Your task to perform on an android device: open app "Reddit" (install if not already installed), go to login, and select forgot password Image 0: 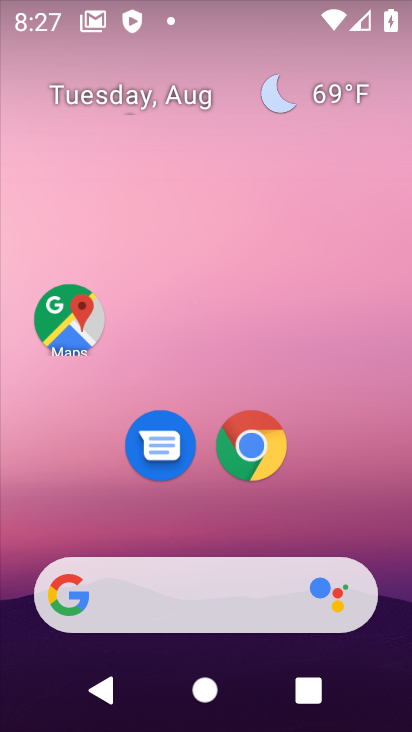
Step 0: drag from (211, 532) to (382, 37)
Your task to perform on an android device: open app "Reddit" (install if not already installed), go to login, and select forgot password Image 1: 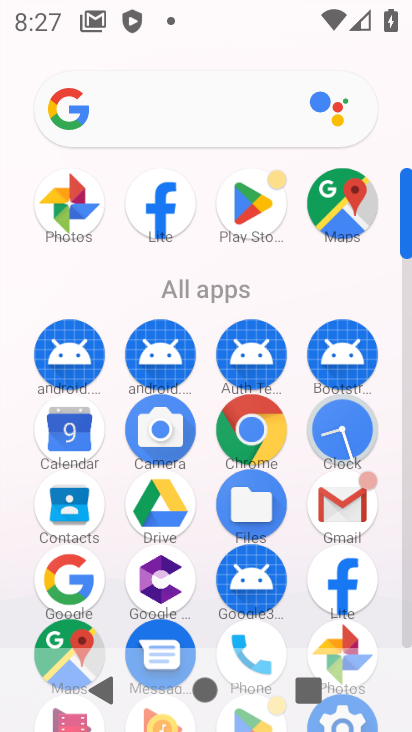
Step 1: click (239, 212)
Your task to perform on an android device: open app "Reddit" (install if not already installed), go to login, and select forgot password Image 2: 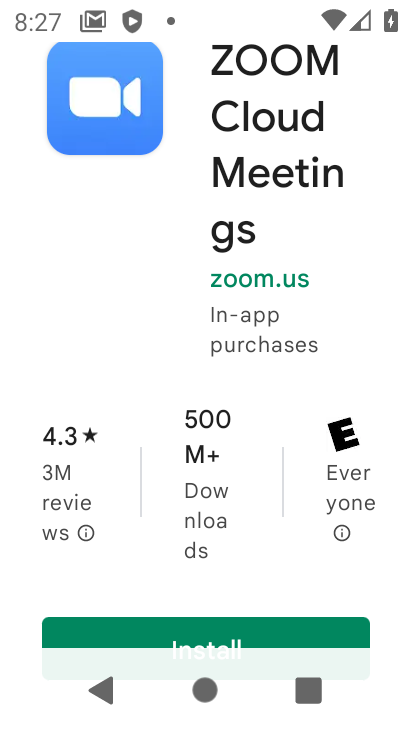
Step 2: drag from (48, 92) to (40, 409)
Your task to perform on an android device: open app "Reddit" (install if not already installed), go to login, and select forgot password Image 3: 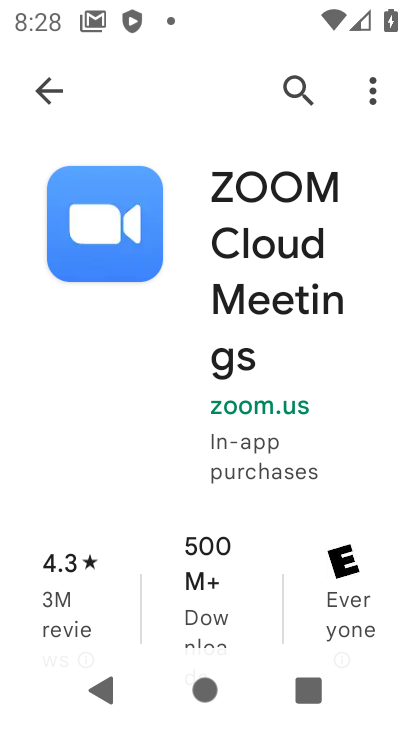
Step 3: click (47, 101)
Your task to perform on an android device: open app "Reddit" (install if not already installed), go to login, and select forgot password Image 4: 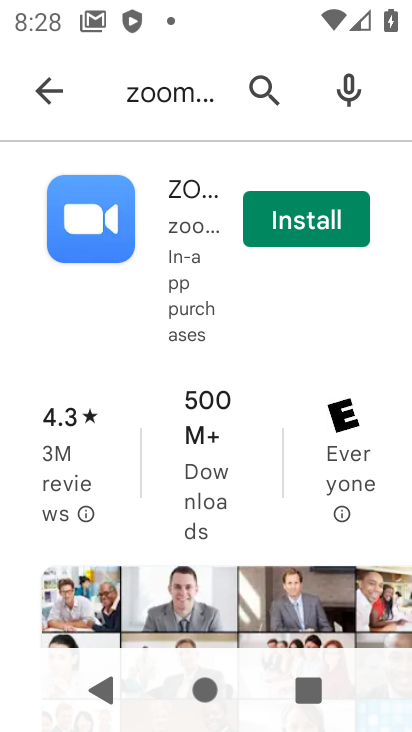
Step 4: click (34, 94)
Your task to perform on an android device: open app "Reddit" (install if not already installed), go to login, and select forgot password Image 5: 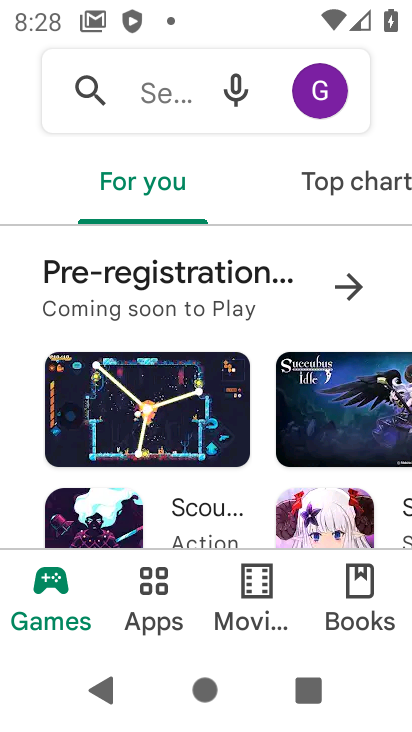
Step 5: click (200, 104)
Your task to perform on an android device: open app "Reddit" (install if not already installed), go to login, and select forgot password Image 6: 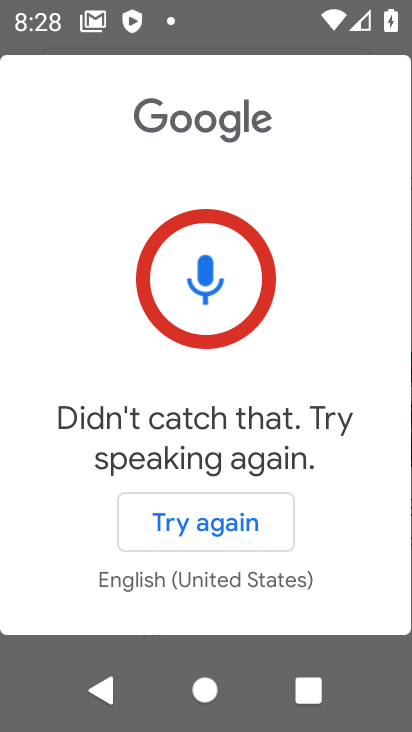
Step 6: click (204, 533)
Your task to perform on an android device: open app "Reddit" (install if not already installed), go to login, and select forgot password Image 7: 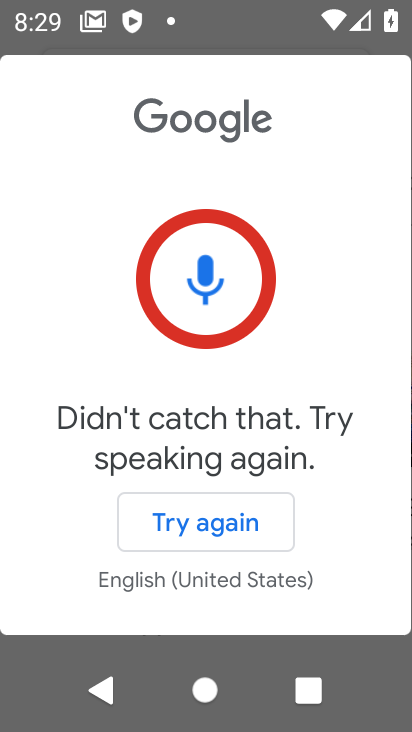
Step 7: press back button
Your task to perform on an android device: open app "Reddit" (install if not already installed), go to login, and select forgot password Image 8: 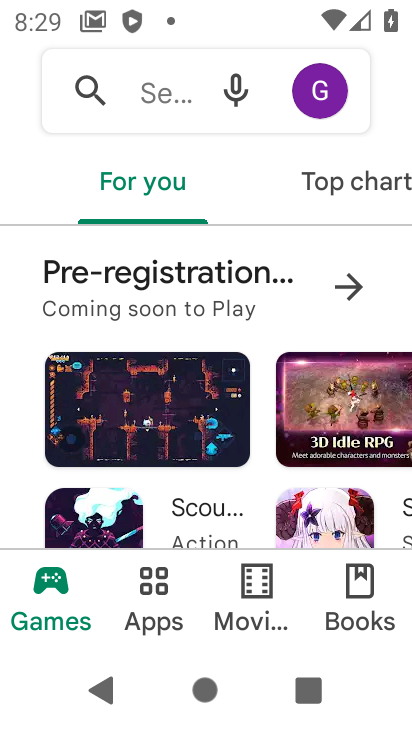
Step 8: click (133, 97)
Your task to perform on an android device: open app "Reddit" (install if not already installed), go to login, and select forgot password Image 9: 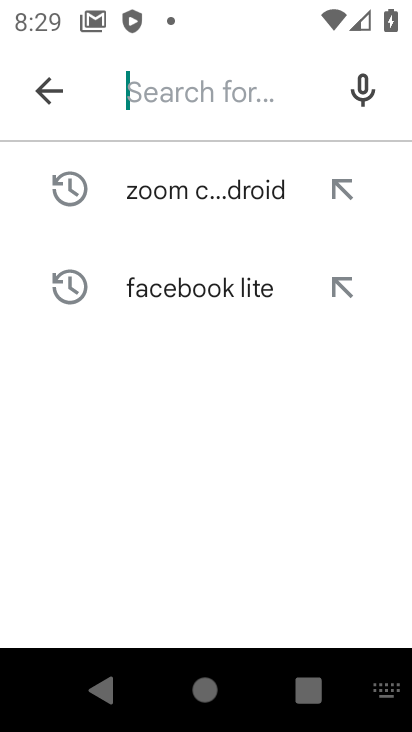
Step 9: type "Reddit"
Your task to perform on an android device: open app "Reddit" (install if not already installed), go to login, and select forgot password Image 10: 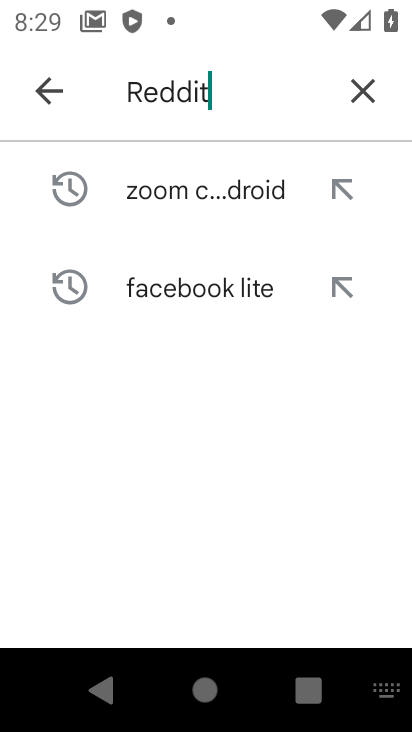
Step 10: type ""
Your task to perform on an android device: open app "Reddit" (install if not already installed), go to login, and select forgot password Image 11: 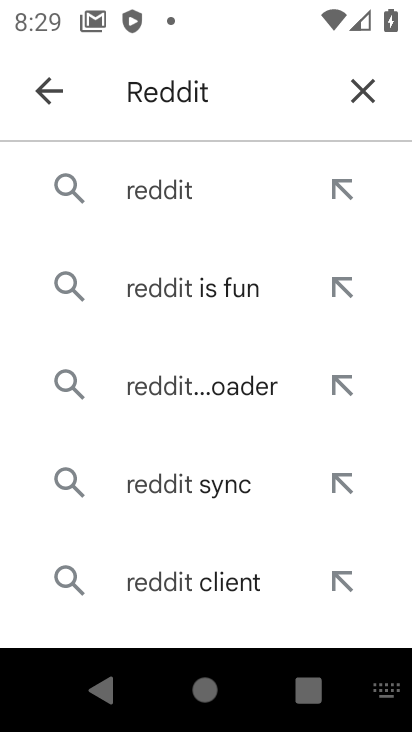
Step 11: click (131, 183)
Your task to perform on an android device: open app "Reddit" (install if not already installed), go to login, and select forgot password Image 12: 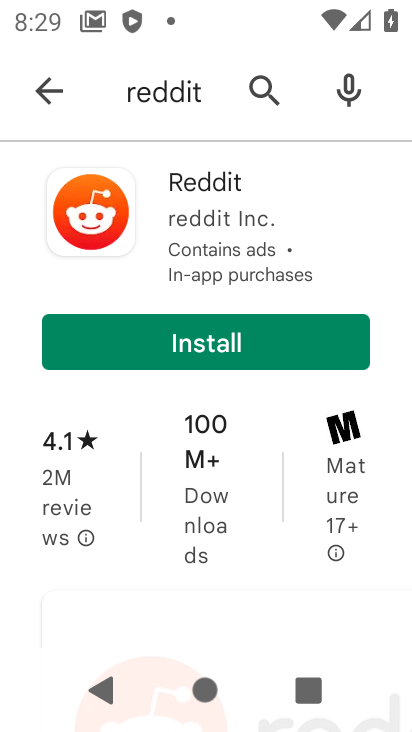
Step 12: click (224, 370)
Your task to perform on an android device: open app "Reddit" (install if not already installed), go to login, and select forgot password Image 13: 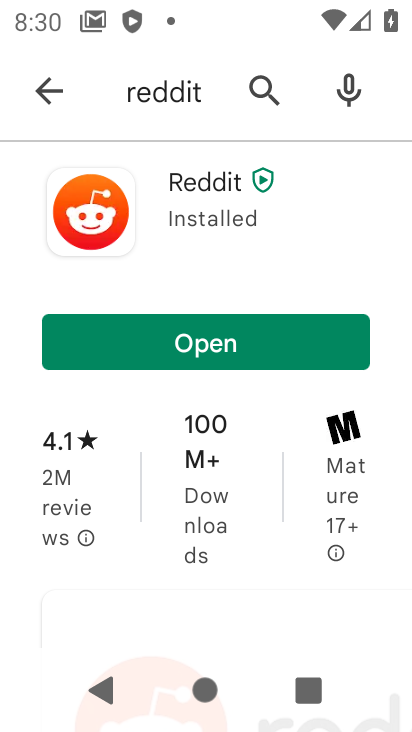
Step 13: click (288, 349)
Your task to perform on an android device: open app "Reddit" (install if not already installed), go to login, and select forgot password Image 14: 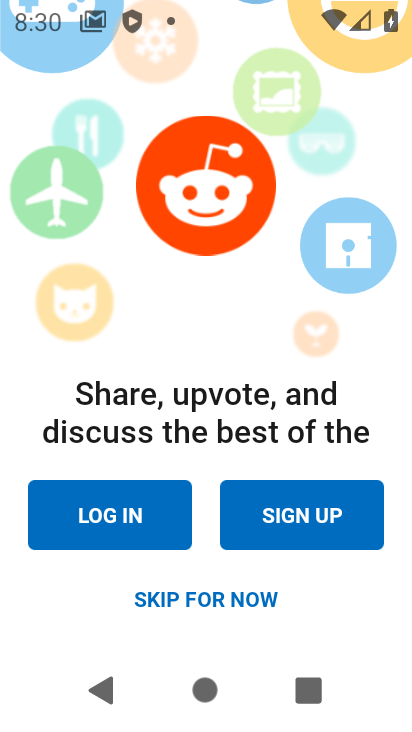
Step 14: click (149, 523)
Your task to perform on an android device: open app "Reddit" (install if not already installed), go to login, and select forgot password Image 15: 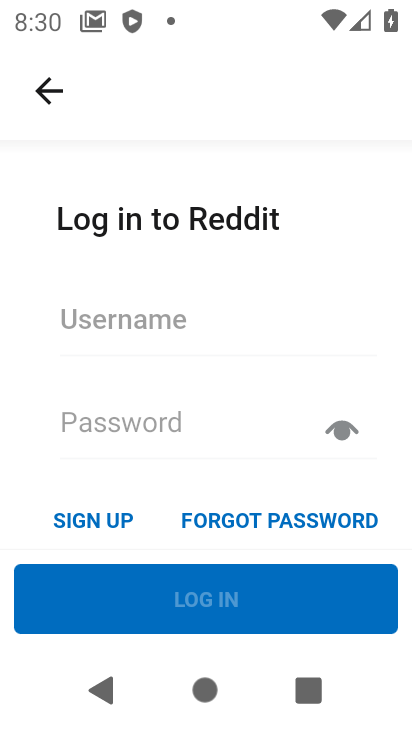
Step 15: click (237, 521)
Your task to perform on an android device: open app "Reddit" (install if not already installed), go to login, and select forgot password Image 16: 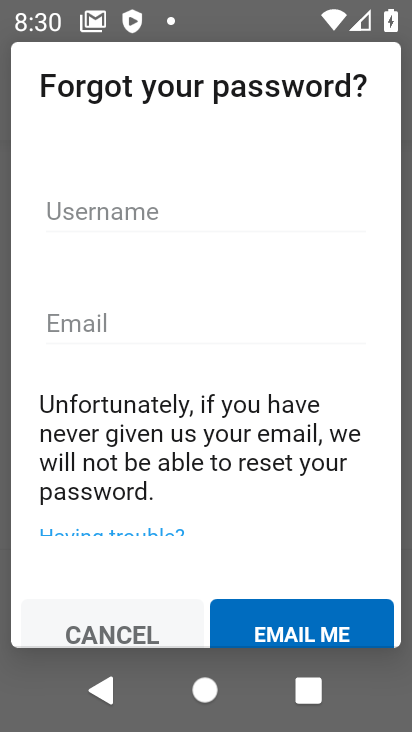
Step 16: task complete